Your task to perform on an android device: Go to display settings Image 0: 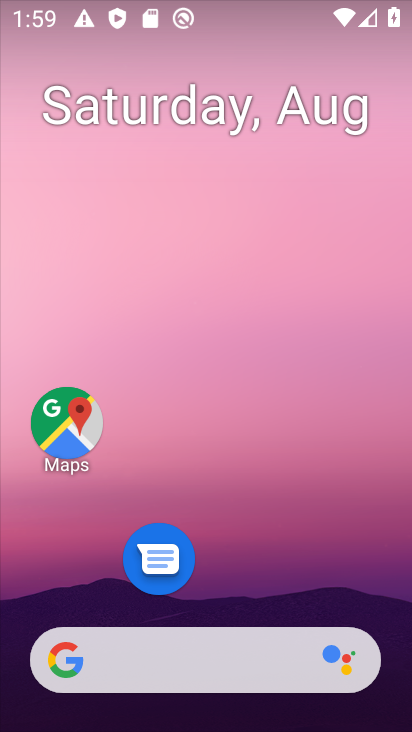
Step 0: drag from (218, 632) to (203, 104)
Your task to perform on an android device: Go to display settings Image 1: 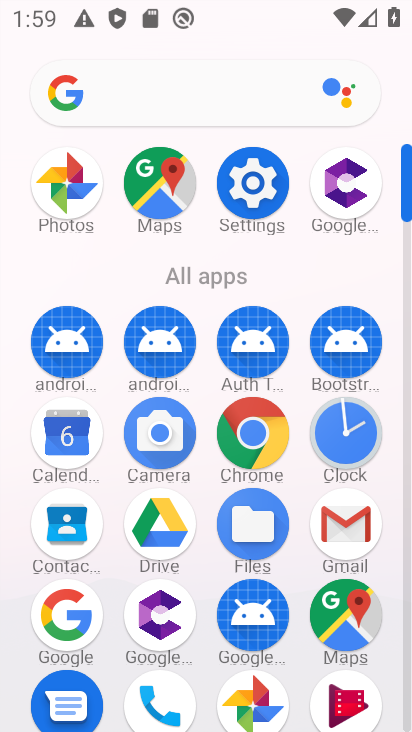
Step 1: click (238, 211)
Your task to perform on an android device: Go to display settings Image 2: 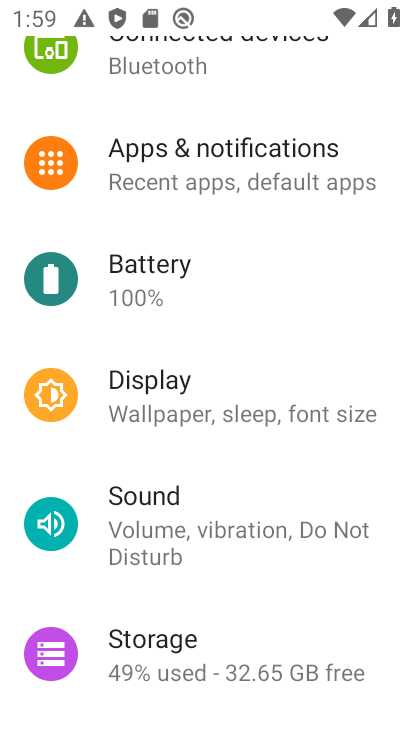
Step 2: drag from (201, 552) to (189, 318)
Your task to perform on an android device: Go to display settings Image 3: 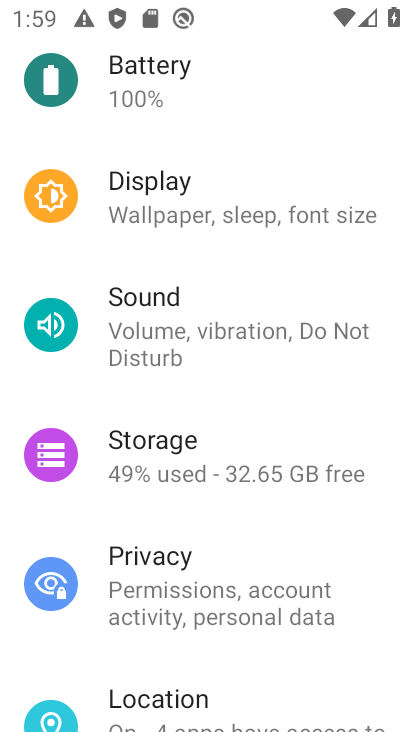
Step 3: click (163, 211)
Your task to perform on an android device: Go to display settings Image 4: 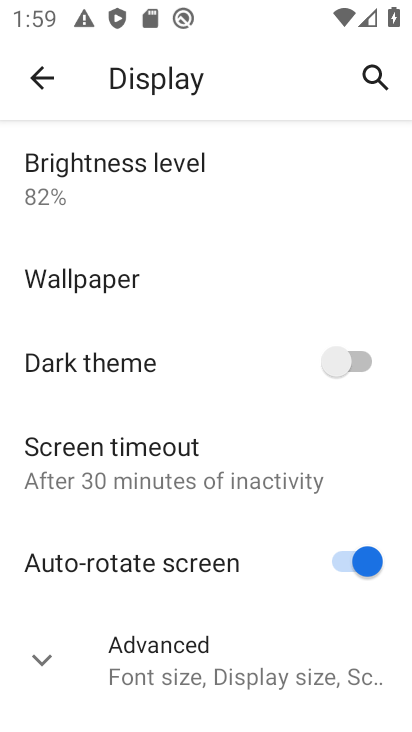
Step 4: click (181, 632)
Your task to perform on an android device: Go to display settings Image 5: 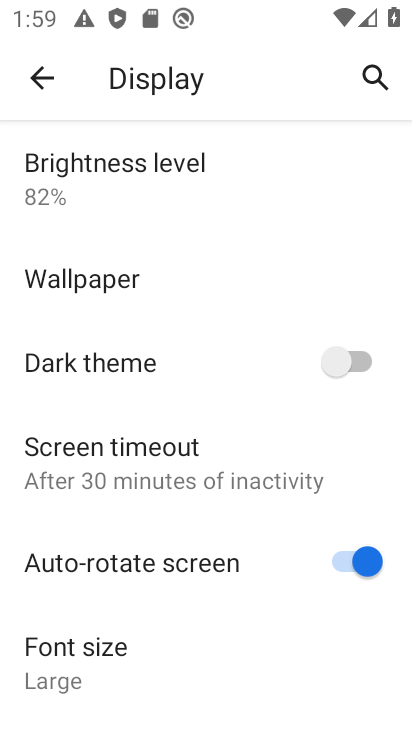
Step 5: task complete